Your task to perform on an android device: Go to Reddit.com Image 0: 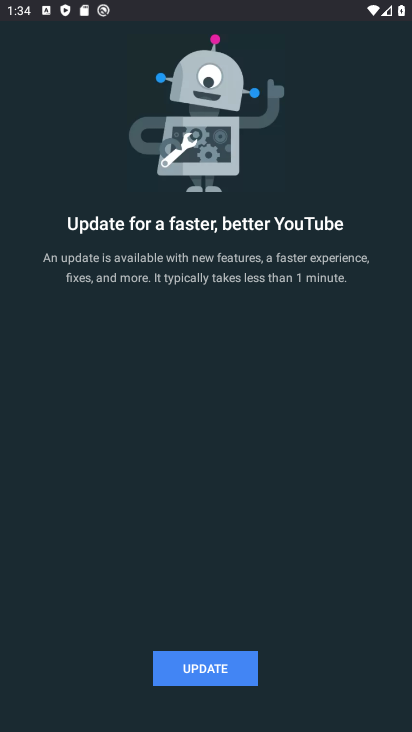
Step 0: press home button
Your task to perform on an android device: Go to Reddit.com Image 1: 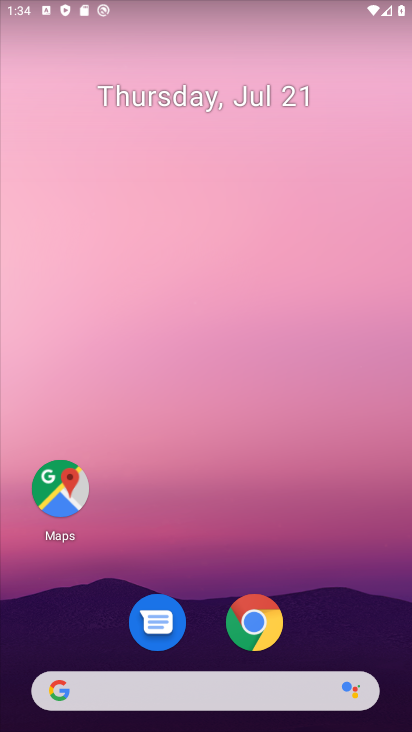
Step 1: drag from (248, 724) to (251, 100)
Your task to perform on an android device: Go to Reddit.com Image 2: 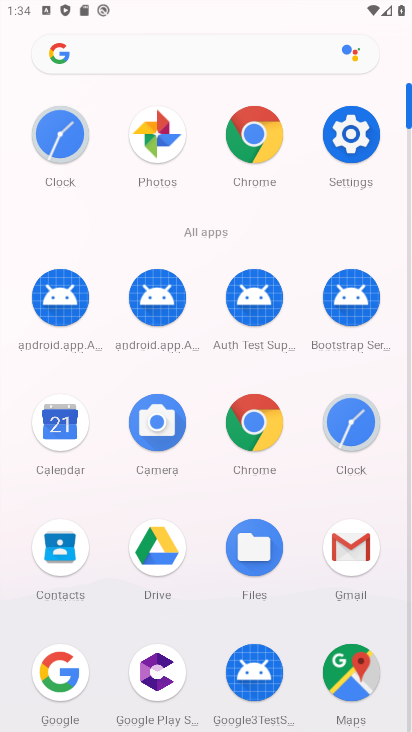
Step 2: click (251, 151)
Your task to perform on an android device: Go to Reddit.com Image 3: 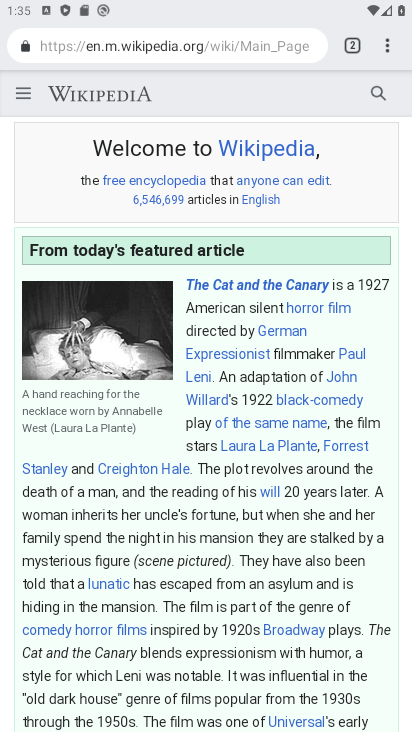
Step 3: click (201, 40)
Your task to perform on an android device: Go to Reddit.com Image 4: 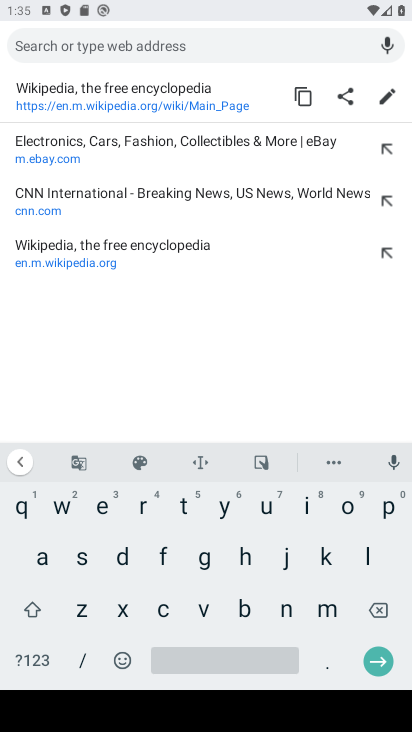
Step 4: click (138, 507)
Your task to perform on an android device: Go to Reddit.com Image 5: 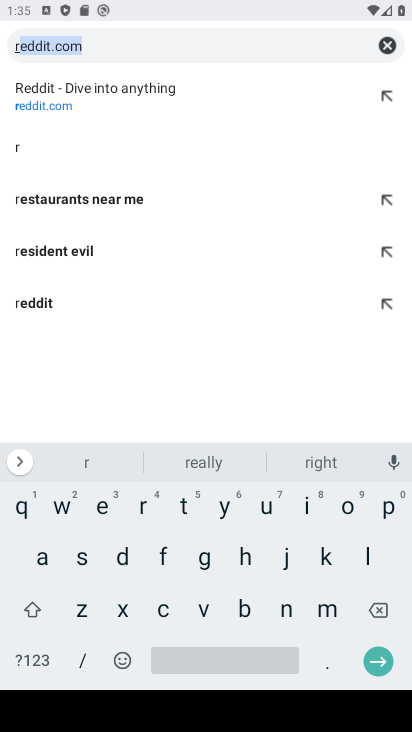
Step 5: click (99, 499)
Your task to perform on an android device: Go to Reddit.com Image 6: 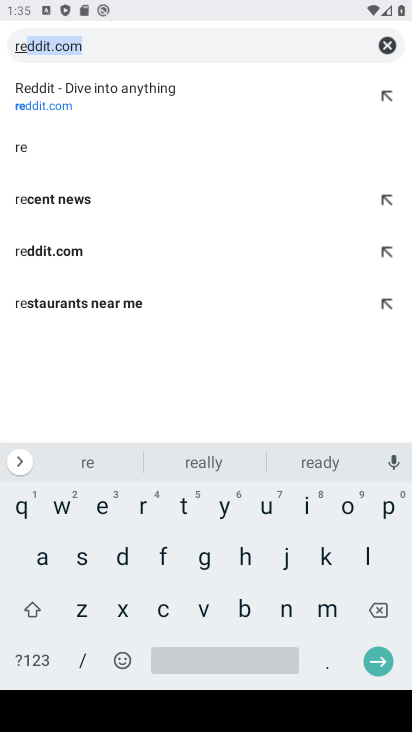
Step 6: click (113, 561)
Your task to perform on an android device: Go to Reddit.com Image 7: 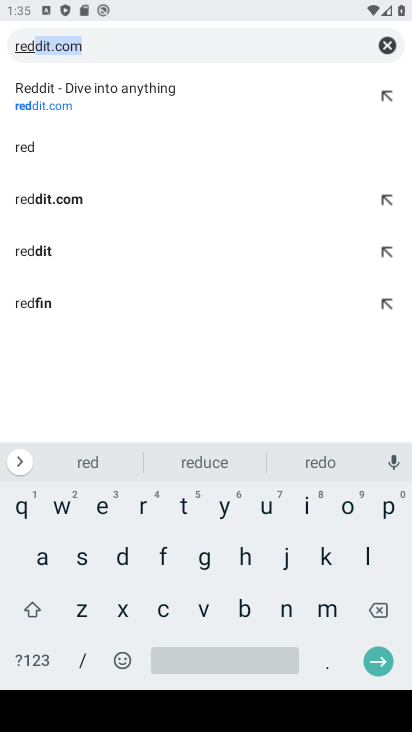
Step 7: click (52, 211)
Your task to perform on an android device: Go to Reddit.com Image 8: 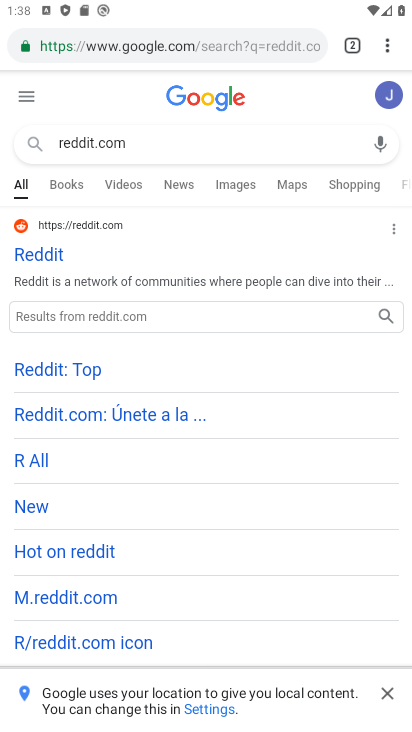
Step 8: click (24, 264)
Your task to perform on an android device: Go to Reddit.com Image 9: 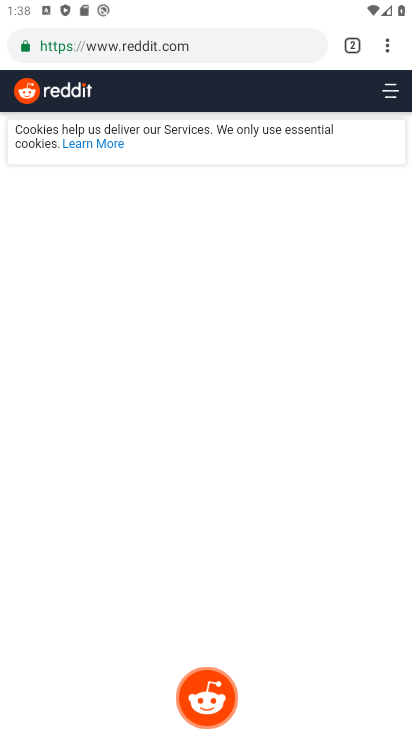
Step 9: task complete